Your task to perform on an android device: set the stopwatch Image 0: 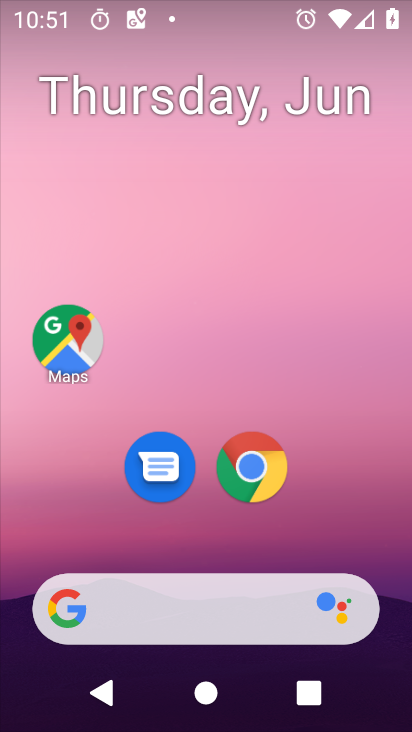
Step 0: drag from (48, 613) to (315, 162)
Your task to perform on an android device: set the stopwatch Image 1: 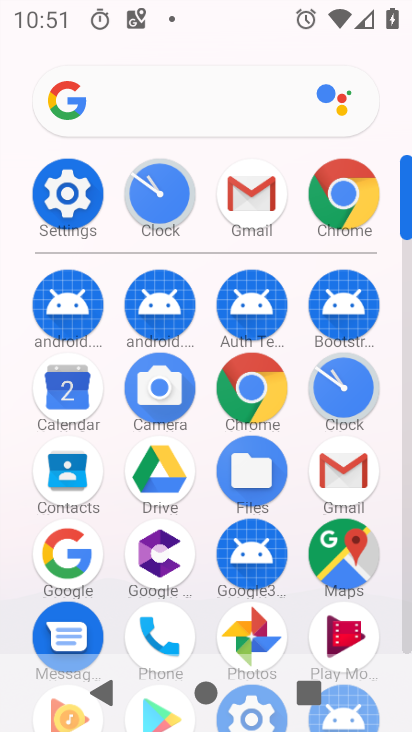
Step 1: click (153, 186)
Your task to perform on an android device: set the stopwatch Image 2: 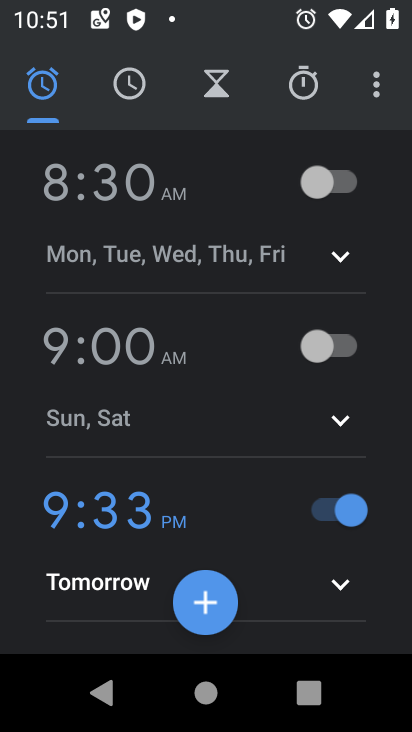
Step 2: click (219, 101)
Your task to perform on an android device: set the stopwatch Image 3: 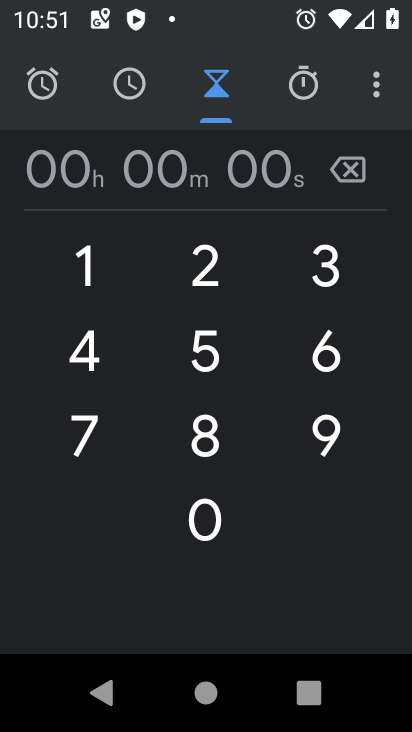
Step 3: click (299, 92)
Your task to perform on an android device: set the stopwatch Image 4: 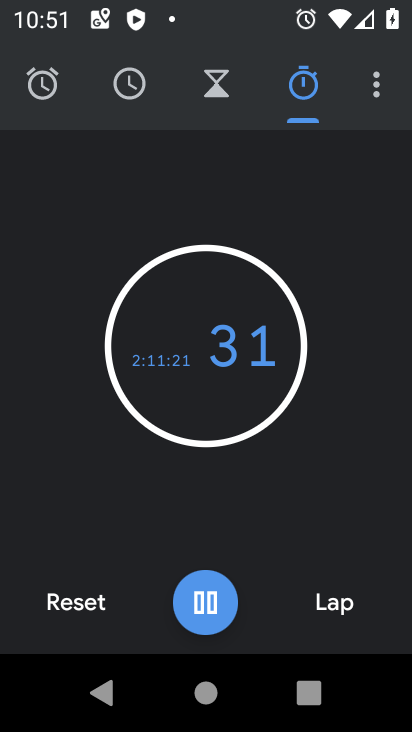
Step 4: click (70, 588)
Your task to perform on an android device: set the stopwatch Image 5: 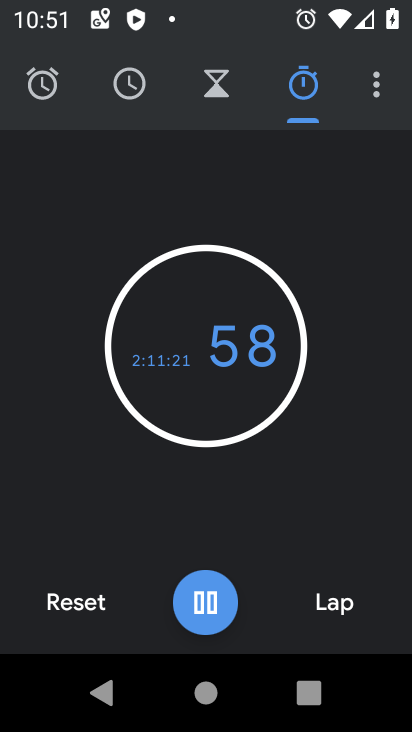
Step 5: click (70, 608)
Your task to perform on an android device: set the stopwatch Image 6: 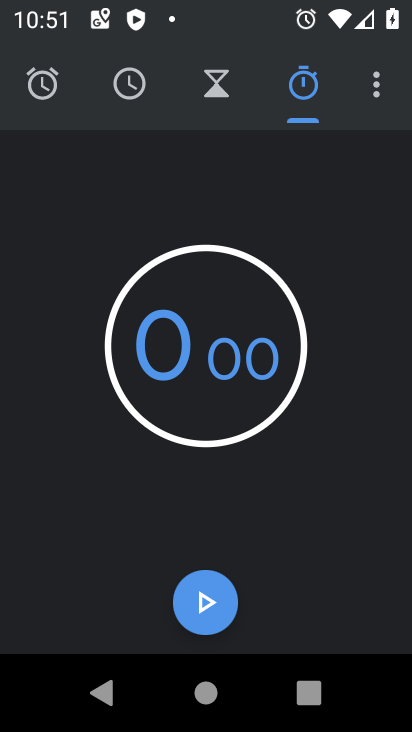
Step 6: click (194, 611)
Your task to perform on an android device: set the stopwatch Image 7: 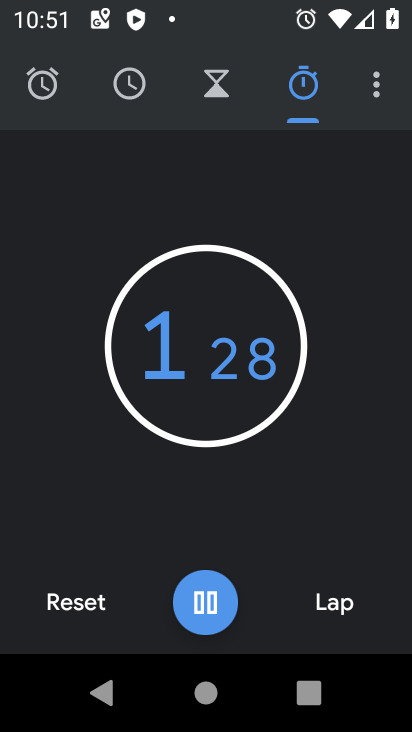
Step 7: task complete